Your task to perform on an android device: Open display settings Image 0: 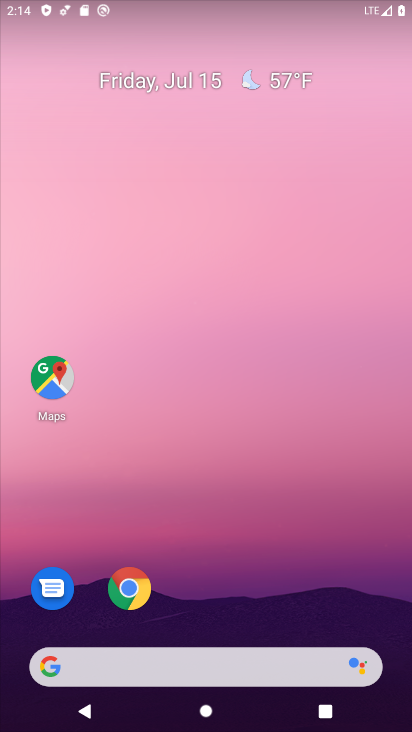
Step 0: drag from (293, 546) to (172, 31)
Your task to perform on an android device: Open display settings Image 1: 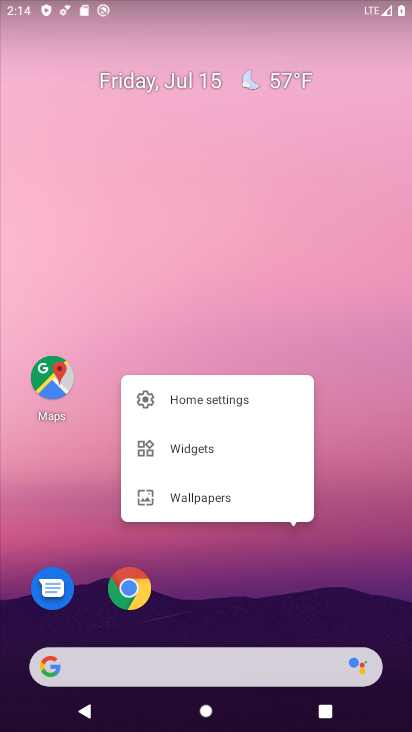
Step 1: click (258, 559)
Your task to perform on an android device: Open display settings Image 2: 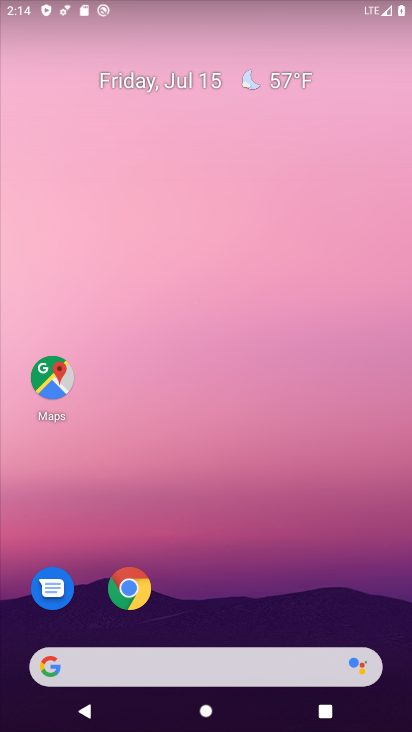
Step 2: drag from (258, 559) to (278, 3)
Your task to perform on an android device: Open display settings Image 3: 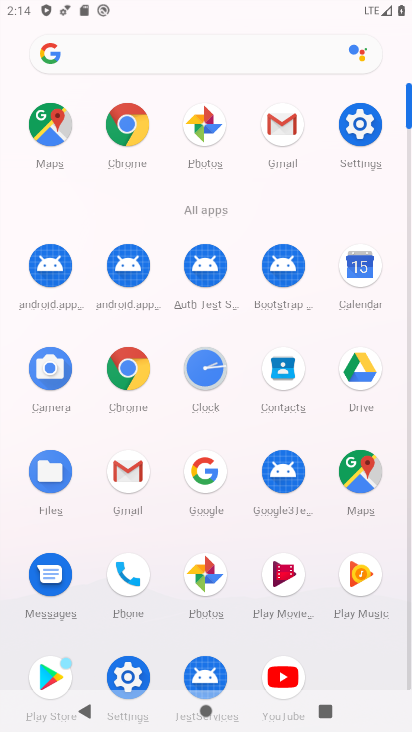
Step 3: click (369, 130)
Your task to perform on an android device: Open display settings Image 4: 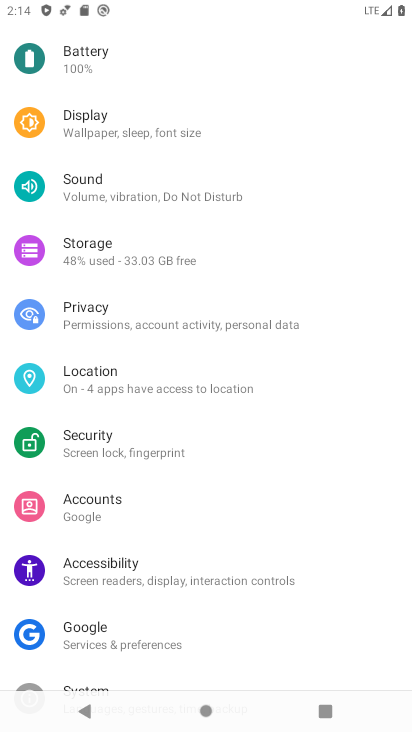
Step 4: drag from (119, 379) to (93, 1)
Your task to perform on an android device: Open display settings Image 5: 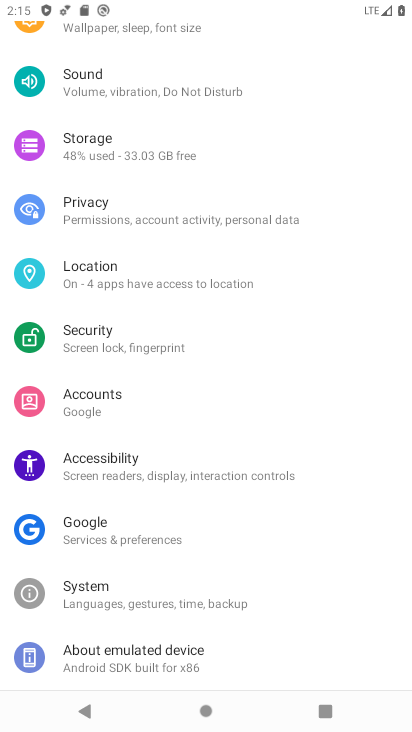
Step 5: drag from (164, 134) to (223, 468)
Your task to perform on an android device: Open display settings Image 6: 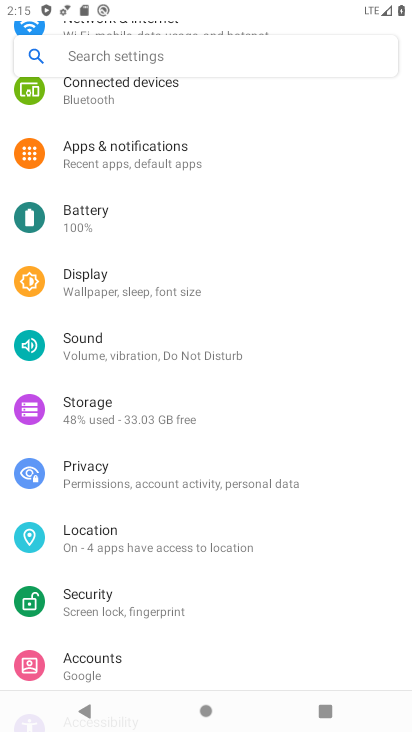
Step 6: click (160, 287)
Your task to perform on an android device: Open display settings Image 7: 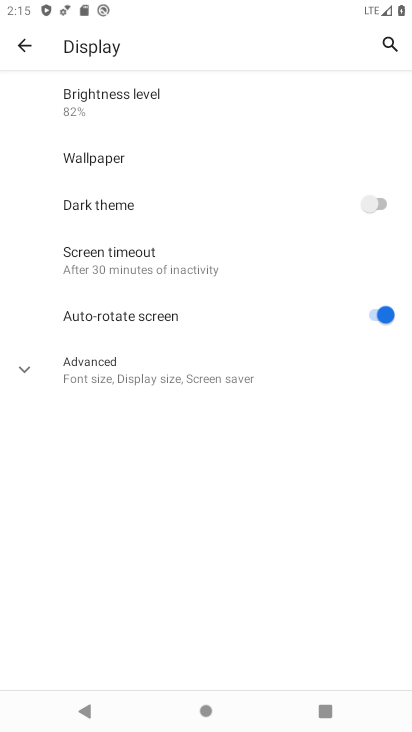
Step 7: task complete